Your task to perform on an android device: toggle notifications settings in the gmail app Image 0: 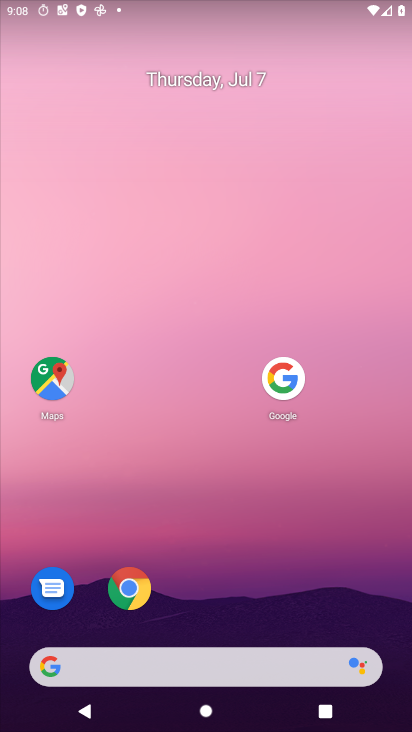
Step 0: press home button
Your task to perform on an android device: toggle notifications settings in the gmail app Image 1: 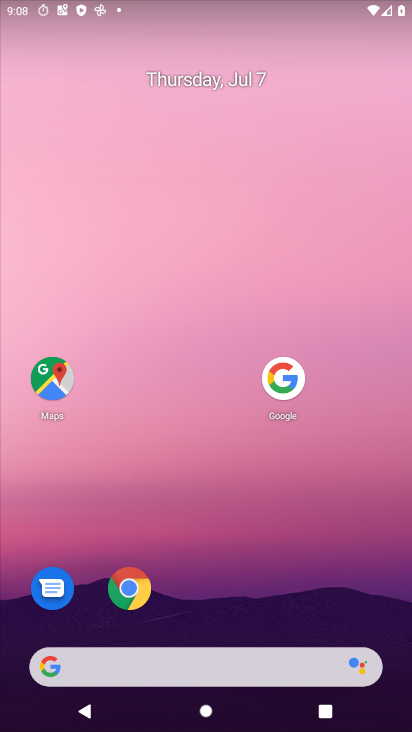
Step 1: drag from (185, 651) to (285, 184)
Your task to perform on an android device: toggle notifications settings in the gmail app Image 2: 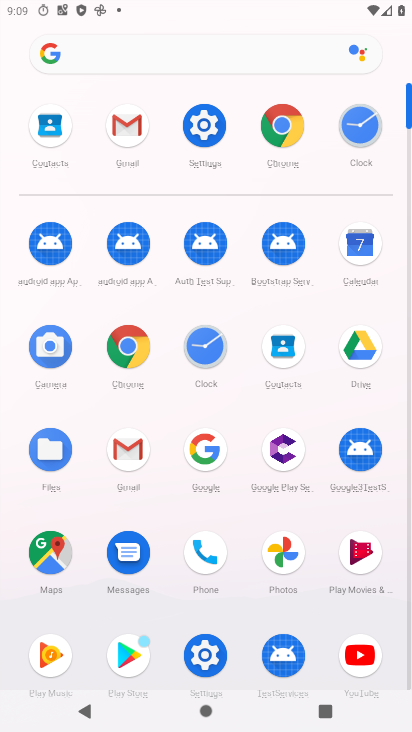
Step 2: click (133, 130)
Your task to perform on an android device: toggle notifications settings in the gmail app Image 3: 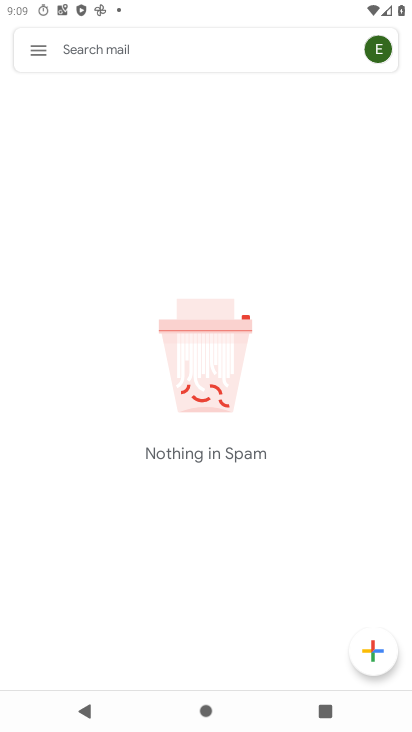
Step 3: click (42, 49)
Your task to perform on an android device: toggle notifications settings in the gmail app Image 4: 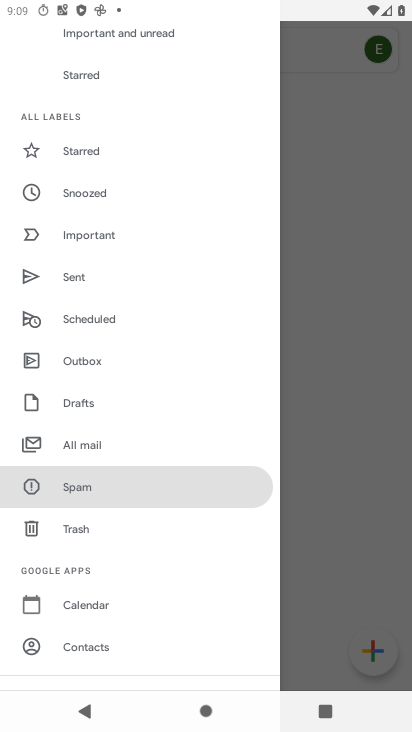
Step 4: drag from (110, 606) to (185, 237)
Your task to perform on an android device: toggle notifications settings in the gmail app Image 5: 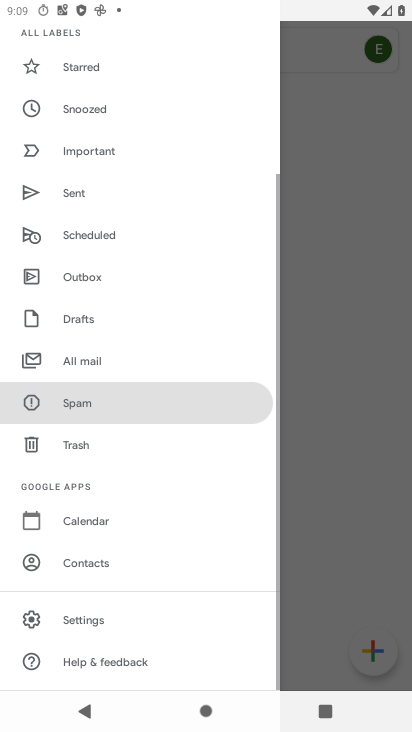
Step 5: click (92, 623)
Your task to perform on an android device: toggle notifications settings in the gmail app Image 6: 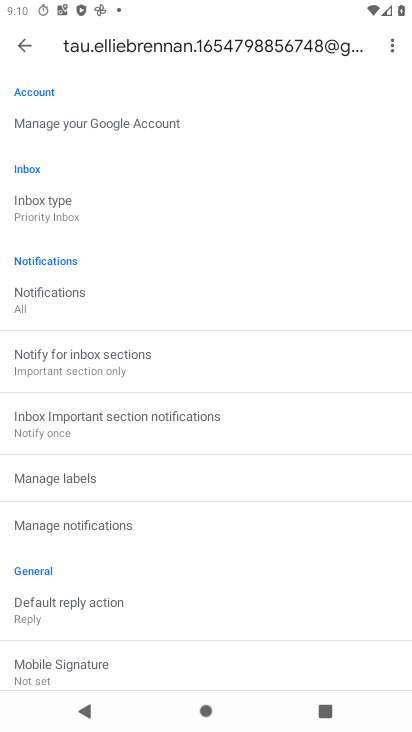
Step 6: click (53, 291)
Your task to perform on an android device: toggle notifications settings in the gmail app Image 7: 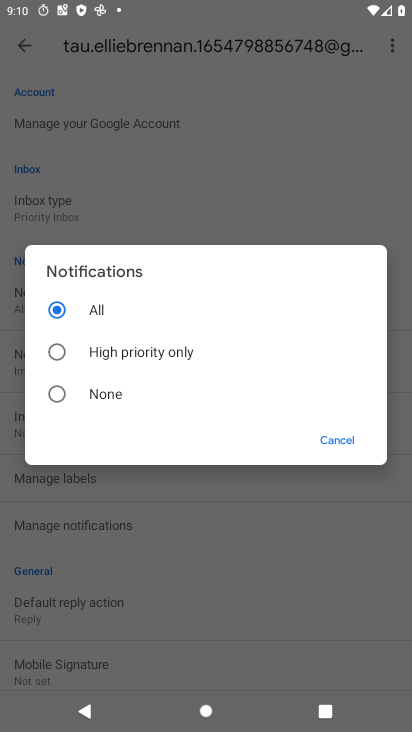
Step 7: click (51, 359)
Your task to perform on an android device: toggle notifications settings in the gmail app Image 8: 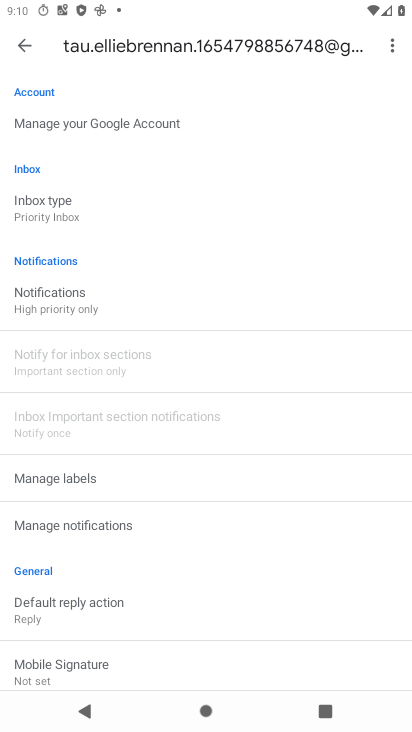
Step 8: task complete